Your task to perform on an android device: turn off data saver in the chrome app Image 0: 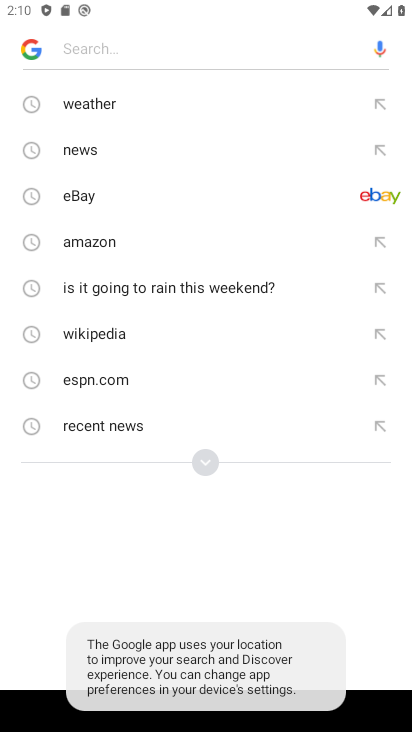
Step 0: press home button
Your task to perform on an android device: turn off data saver in the chrome app Image 1: 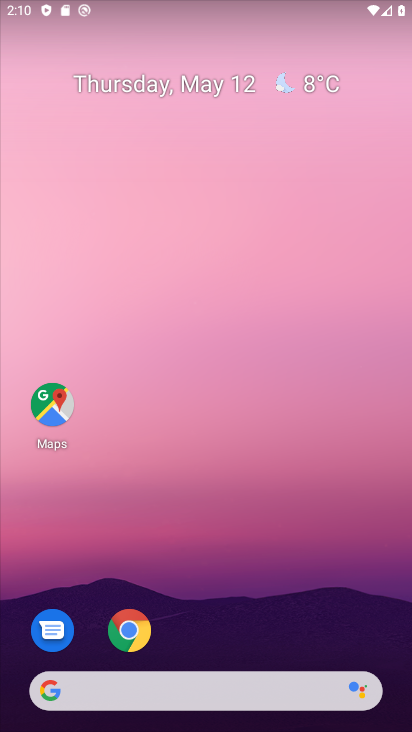
Step 1: click (145, 641)
Your task to perform on an android device: turn off data saver in the chrome app Image 2: 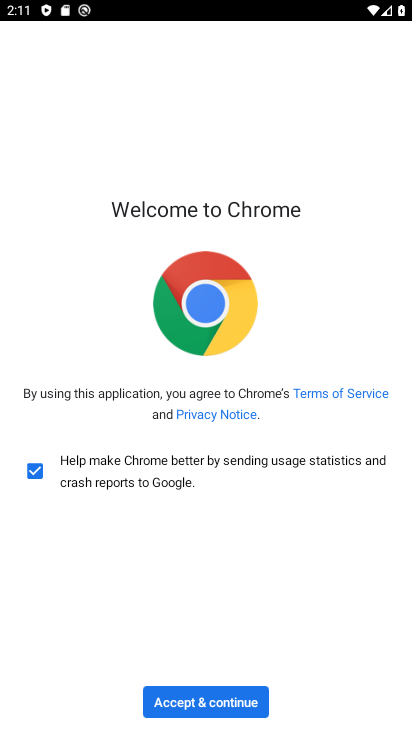
Step 2: click (231, 705)
Your task to perform on an android device: turn off data saver in the chrome app Image 3: 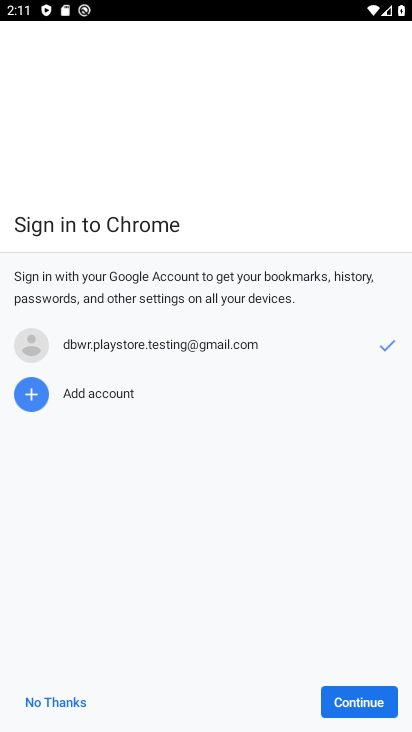
Step 3: click (339, 699)
Your task to perform on an android device: turn off data saver in the chrome app Image 4: 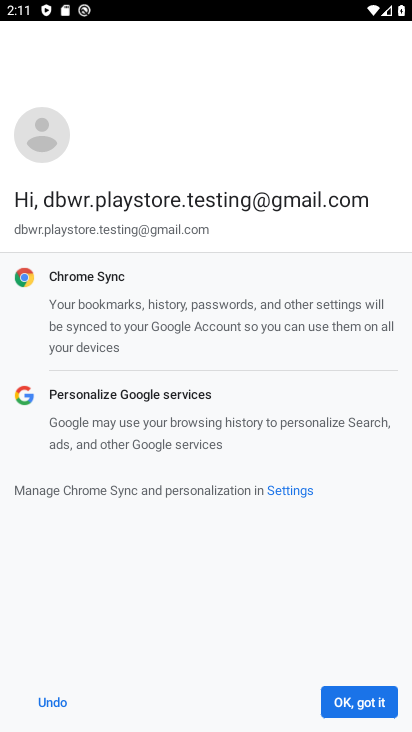
Step 4: click (342, 699)
Your task to perform on an android device: turn off data saver in the chrome app Image 5: 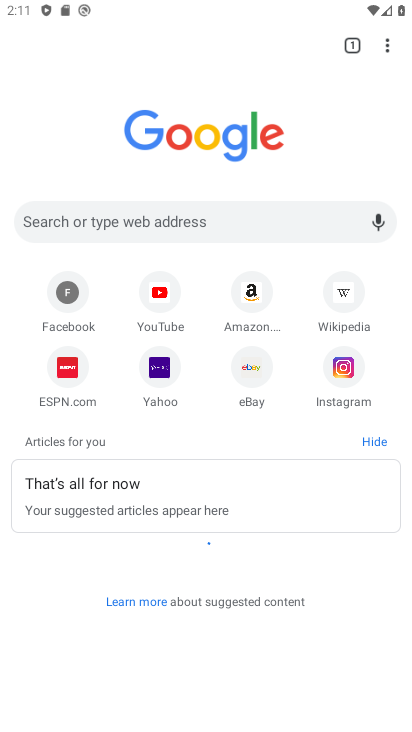
Step 5: click (389, 54)
Your task to perform on an android device: turn off data saver in the chrome app Image 6: 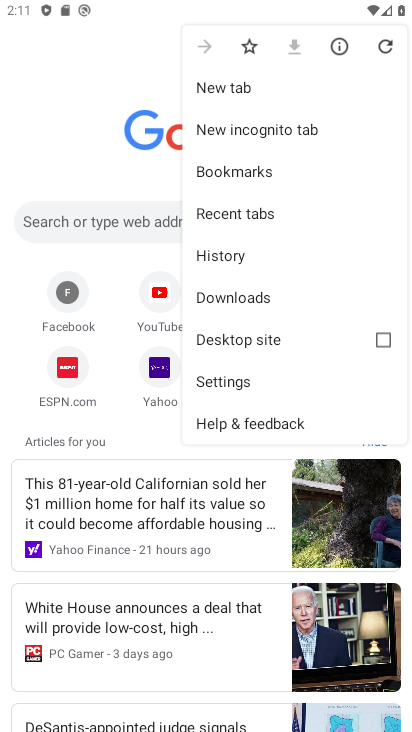
Step 6: click (217, 377)
Your task to perform on an android device: turn off data saver in the chrome app Image 7: 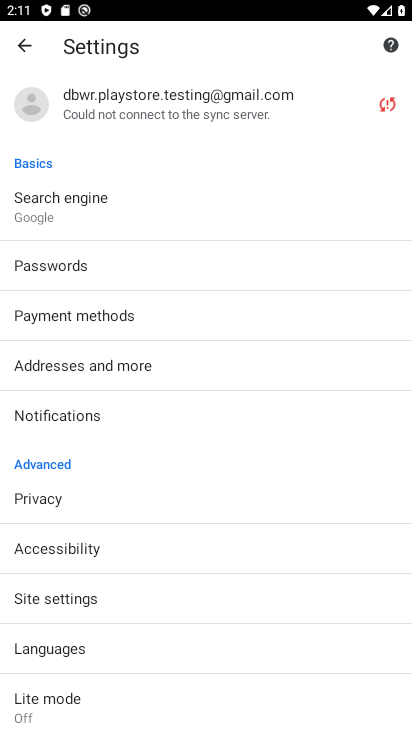
Step 7: drag from (155, 602) to (173, 503)
Your task to perform on an android device: turn off data saver in the chrome app Image 8: 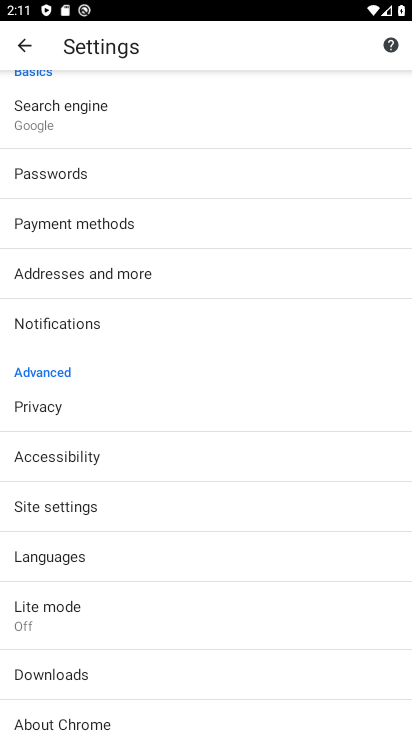
Step 8: click (95, 614)
Your task to perform on an android device: turn off data saver in the chrome app Image 9: 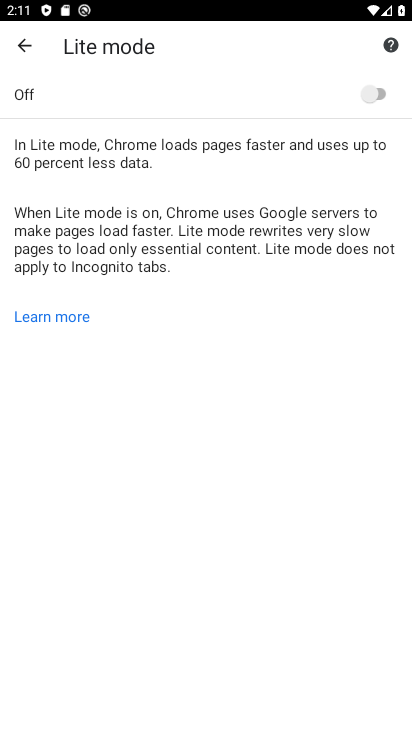
Step 9: task complete